Your task to perform on an android device: What's the weather going to be this weekend? Image 0: 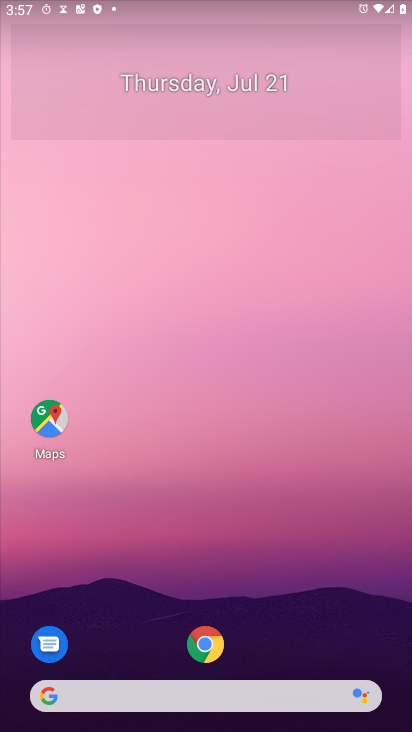
Step 0: press home button
Your task to perform on an android device: What's the weather going to be this weekend? Image 1: 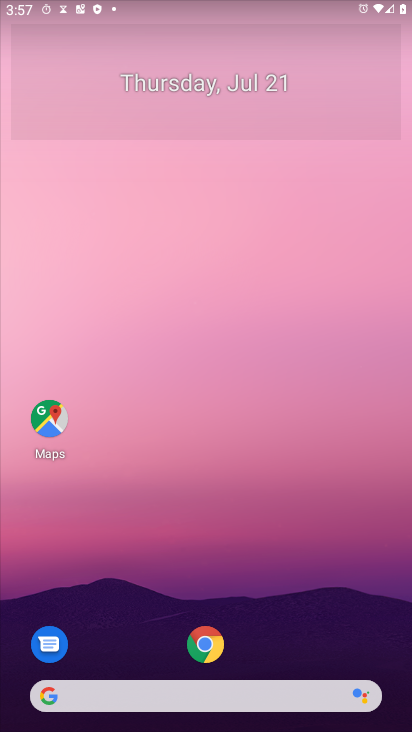
Step 1: drag from (308, 487) to (297, 72)
Your task to perform on an android device: What's the weather going to be this weekend? Image 2: 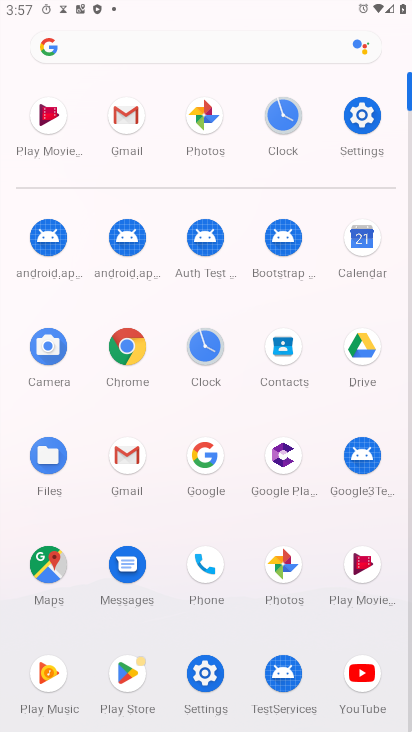
Step 2: click (202, 453)
Your task to perform on an android device: What's the weather going to be this weekend? Image 3: 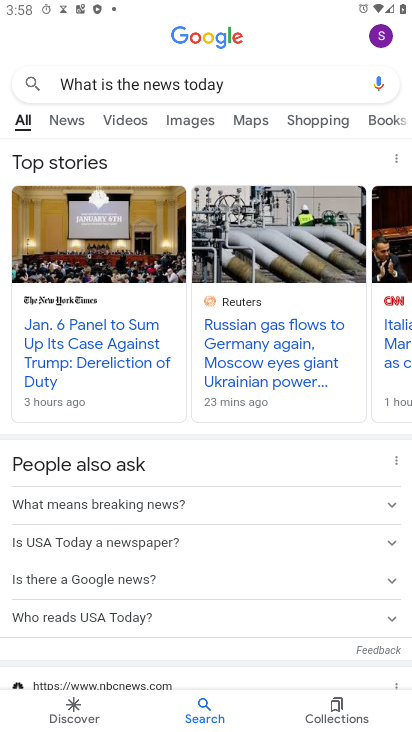
Step 3: click (270, 83)
Your task to perform on an android device: What's the weather going to be this weekend? Image 4: 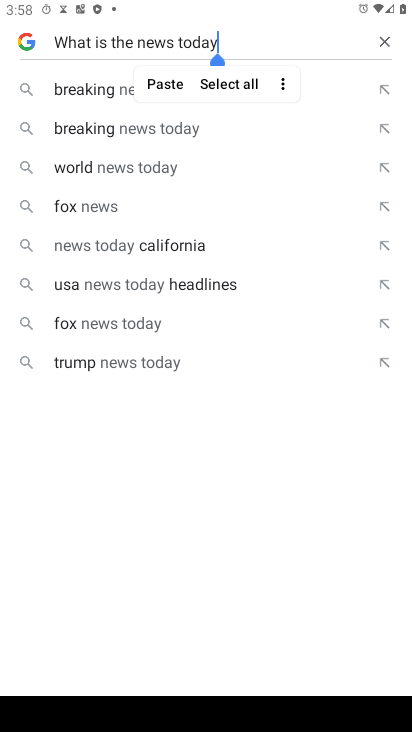
Step 4: click (385, 32)
Your task to perform on an android device: What's the weather going to be this weekend? Image 5: 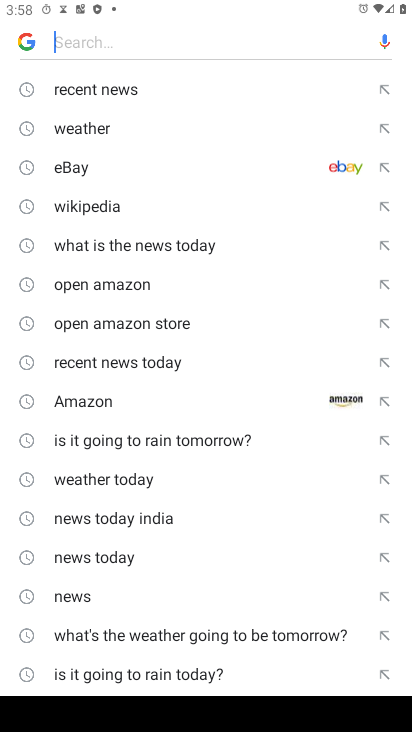
Step 5: type "What's the weather going to be this weekend?"
Your task to perform on an android device: What's the weather going to be this weekend? Image 6: 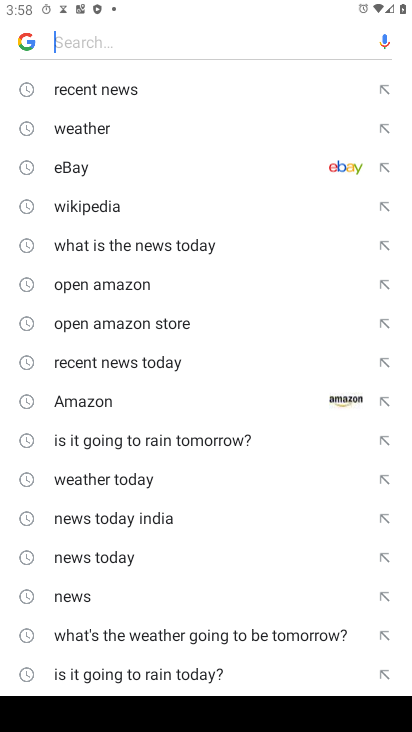
Step 6: click (99, 42)
Your task to perform on an android device: What's the weather going to be this weekend? Image 7: 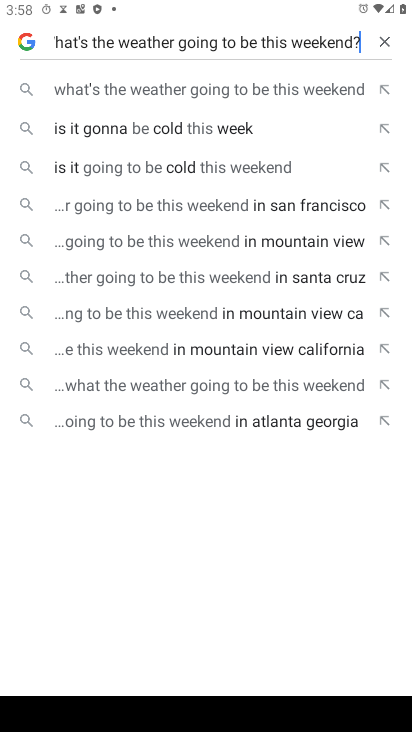
Step 7: click (87, 37)
Your task to perform on an android device: What's the weather going to be this weekend? Image 8: 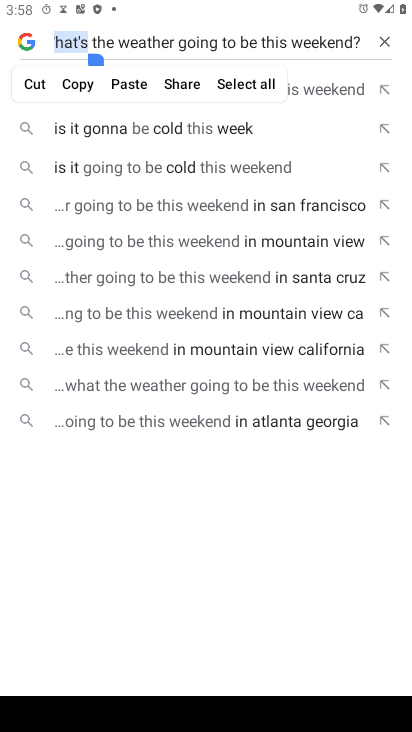
Step 8: press enter
Your task to perform on an android device: What's the weather going to be this weekend? Image 9: 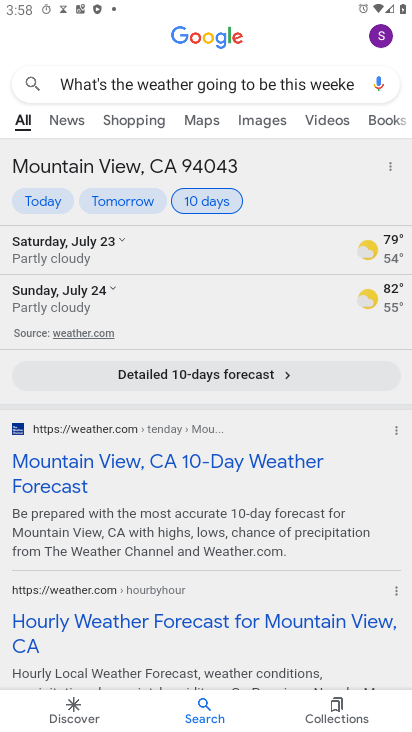
Step 9: task complete